Your task to perform on an android device: Search for vegetarian restaurants on Maps Image 0: 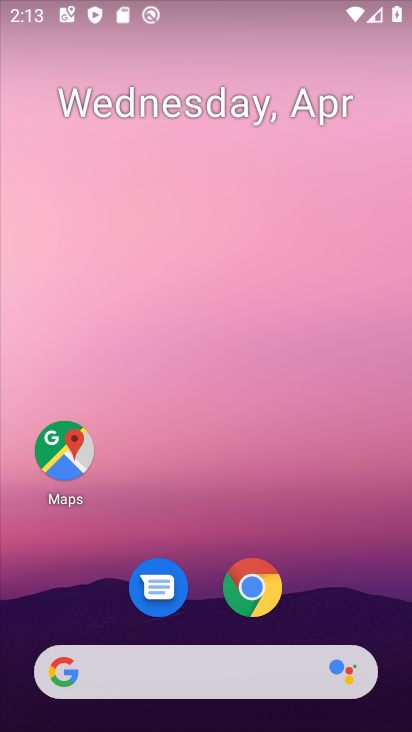
Step 0: drag from (203, 728) to (202, 229)
Your task to perform on an android device: Search for vegetarian restaurants on Maps Image 1: 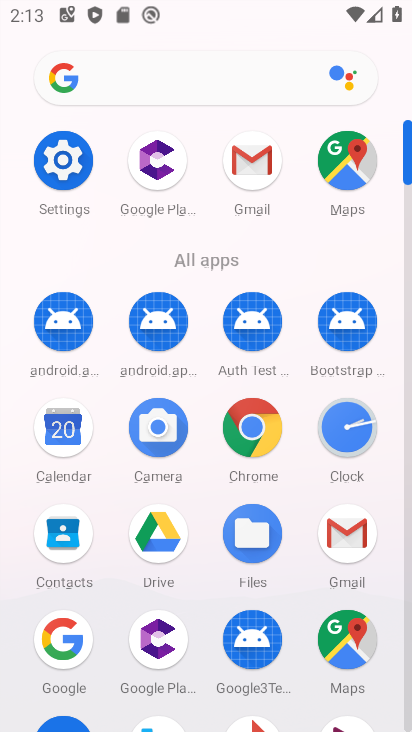
Step 1: click (342, 635)
Your task to perform on an android device: Search for vegetarian restaurants on Maps Image 2: 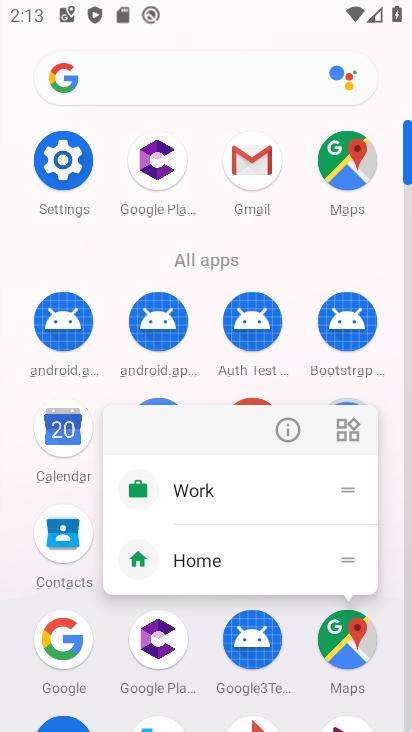
Step 2: click (342, 635)
Your task to perform on an android device: Search for vegetarian restaurants on Maps Image 3: 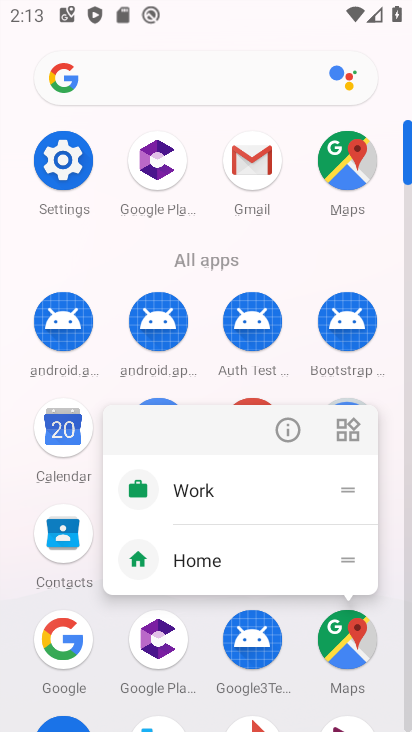
Step 3: click (342, 635)
Your task to perform on an android device: Search for vegetarian restaurants on Maps Image 4: 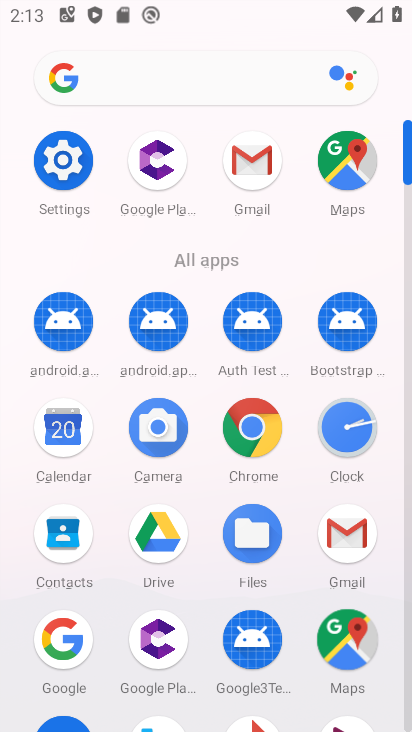
Step 4: click (342, 635)
Your task to perform on an android device: Search for vegetarian restaurants on Maps Image 5: 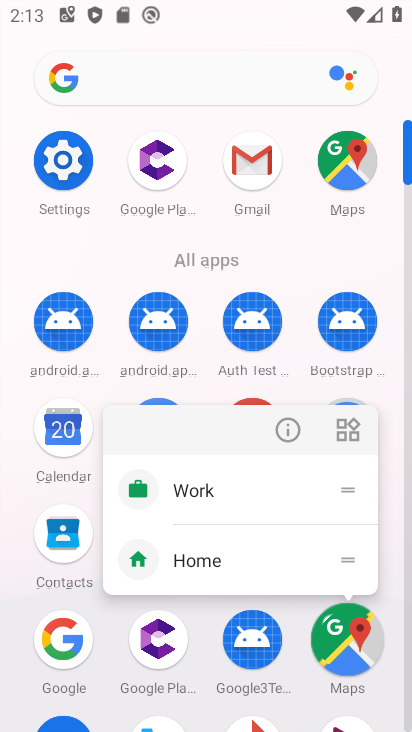
Step 5: click (342, 635)
Your task to perform on an android device: Search for vegetarian restaurants on Maps Image 6: 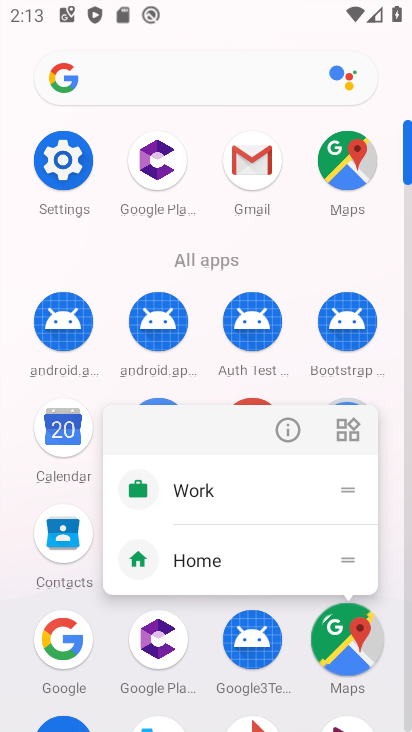
Step 6: click (342, 635)
Your task to perform on an android device: Search for vegetarian restaurants on Maps Image 7: 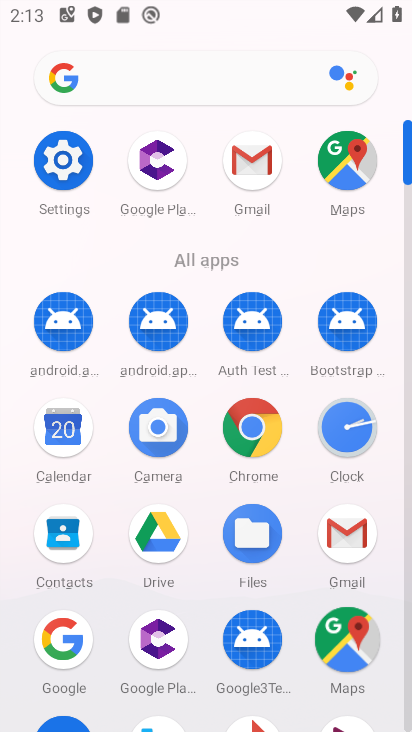
Step 7: click (342, 635)
Your task to perform on an android device: Search for vegetarian restaurants on Maps Image 8: 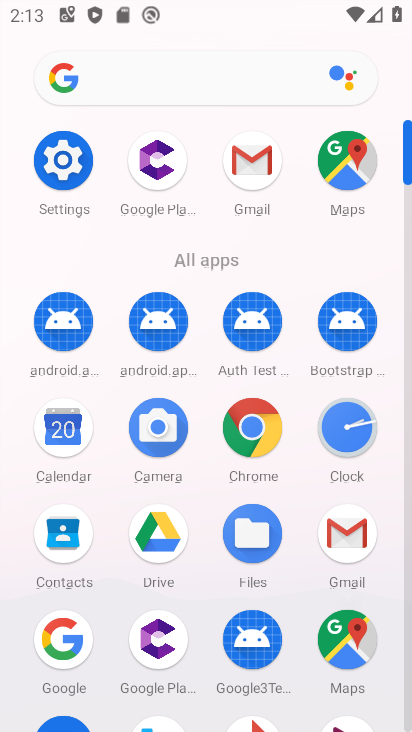
Step 8: click (342, 635)
Your task to perform on an android device: Search for vegetarian restaurants on Maps Image 9: 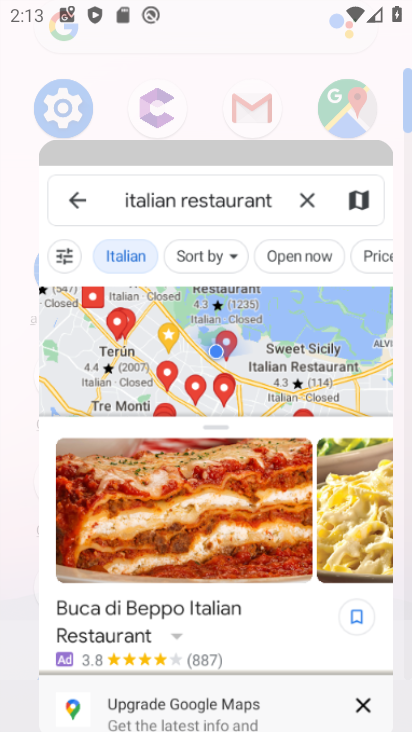
Step 9: click (342, 635)
Your task to perform on an android device: Search for vegetarian restaurants on Maps Image 10: 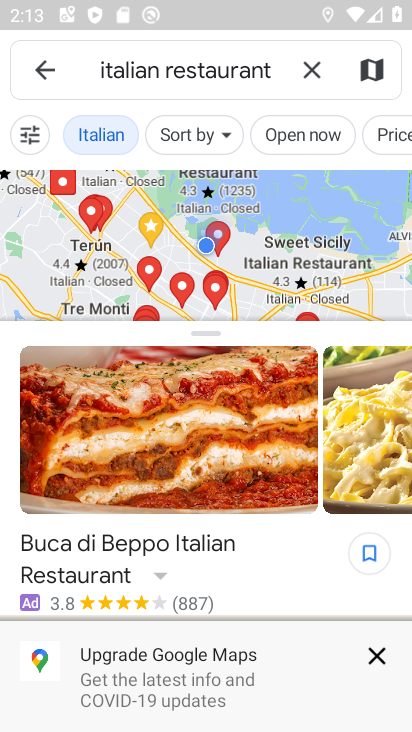
Step 10: click (342, 635)
Your task to perform on an android device: Search for vegetarian restaurants on Maps Image 11: 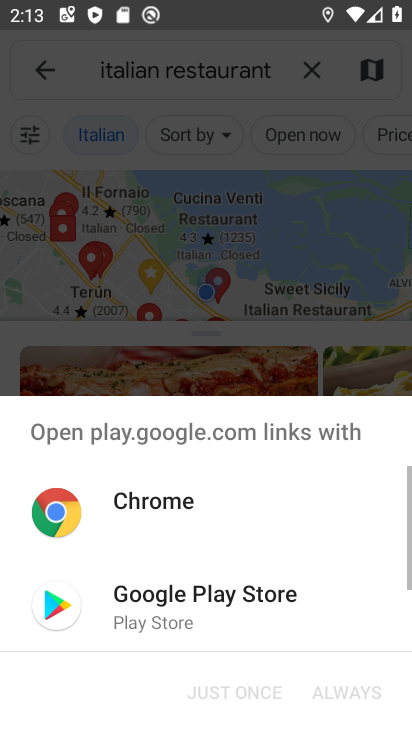
Step 11: click (309, 57)
Your task to perform on an android device: Search for vegetarian restaurants on Maps Image 12: 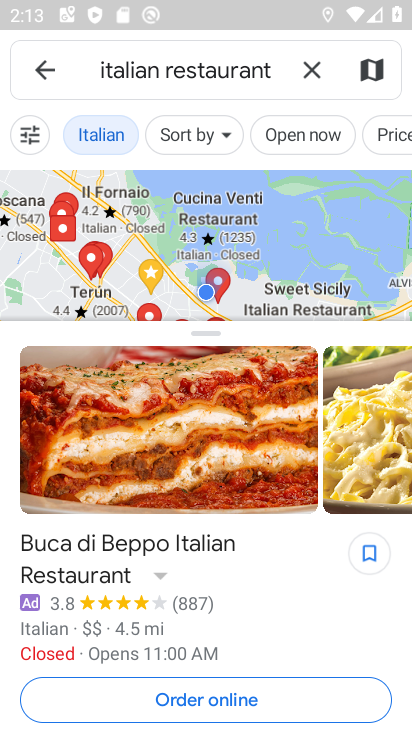
Step 12: click (313, 61)
Your task to perform on an android device: Search for vegetarian restaurants on Maps Image 13: 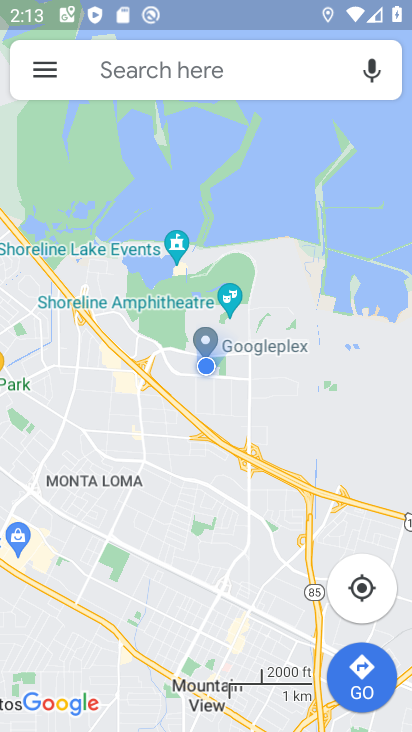
Step 13: click (236, 82)
Your task to perform on an android device: Search for vegetarian restaurants on Maps Image 14: 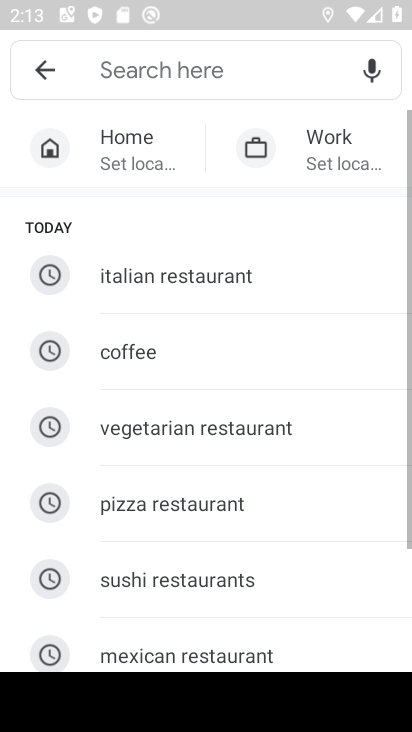
Step 14: click (265, 406)
Your task to perform on an android device: Search for vegetarian restaurants on Maps Image 15: 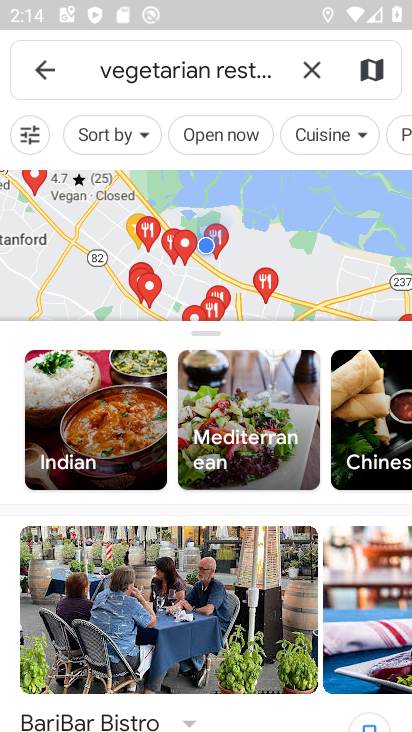
Step 15: task complete